Your task to perform on an android device: change the clock display to digital Image 0: 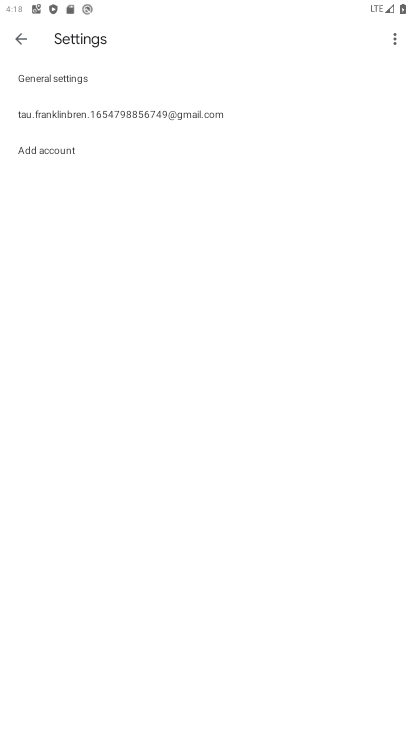
Step 0: press home button
Your task to perform on an android device: change the clock display to digital Image 1: 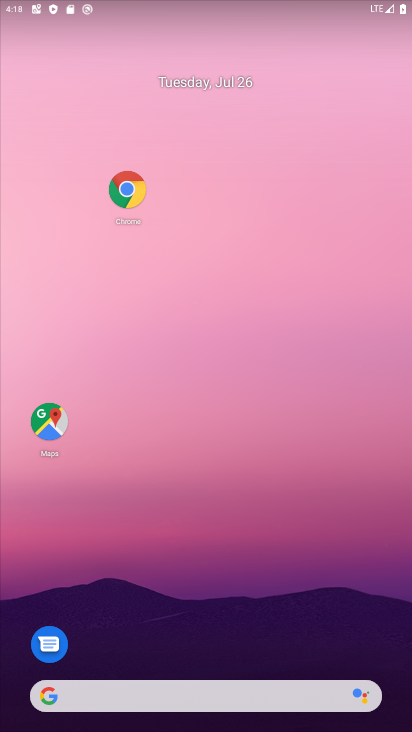
Step 1: drag from (277, 661) to (271, 86)
Your task to perform on an android device: change the clock display to digital Image 2: 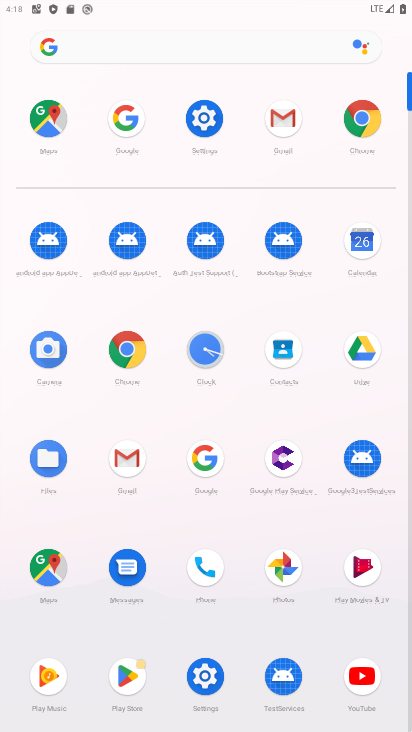
Step 2: click (198, 350)
Your task to perform on an android device: change the clock display to digital Image 3: 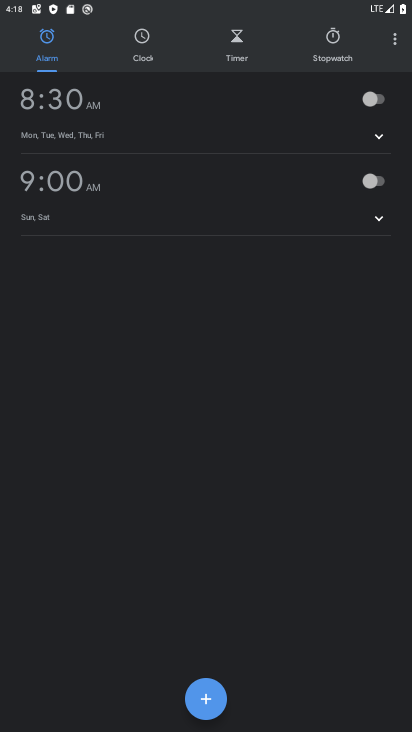
Step 3: click (390, 40)
Your task to perform on an android device: change the clock display to digital Image 4: 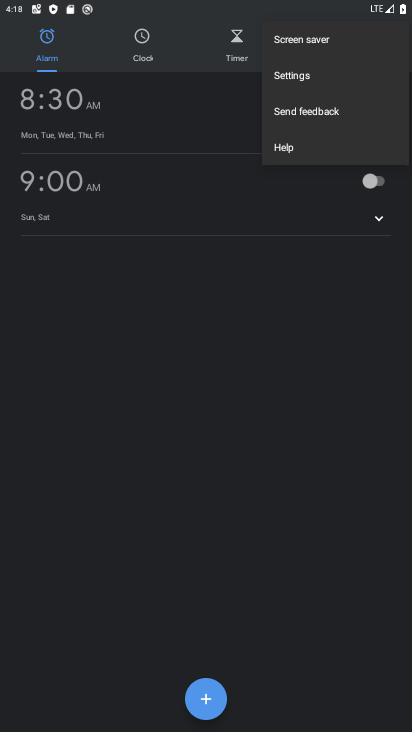
Step 4: click (283, 80)
Your task to perform on an android device: change the clock display to digital Image 5: 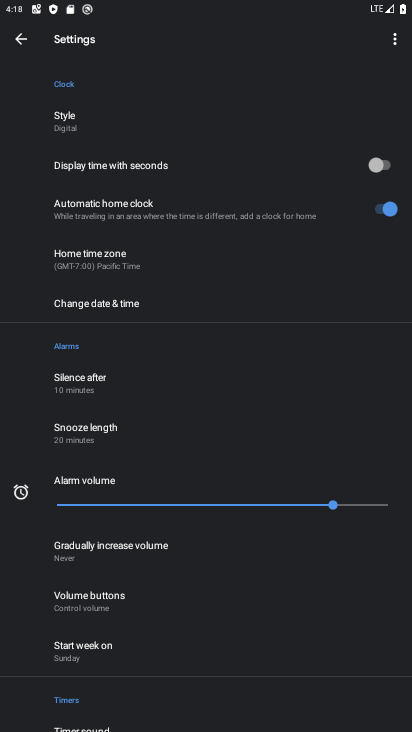
Step 5: task complete